Your task to perform on an android device: turn off location Image 0: 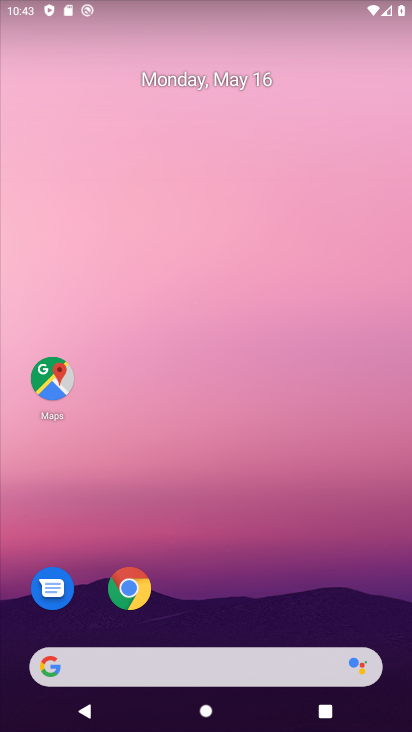
Step 0: drag from (178, 639) to (276, 188)
Your task to perform on an android device: turn off location Image 1: 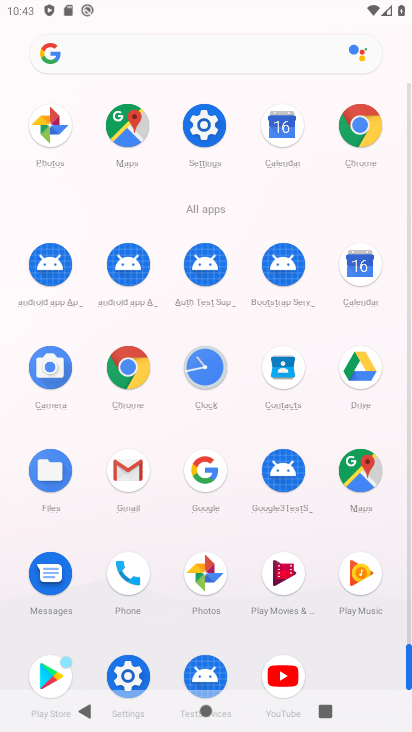
Step 1: click (131, 668)
Your task to perform on an android device: turn off location Image 2: 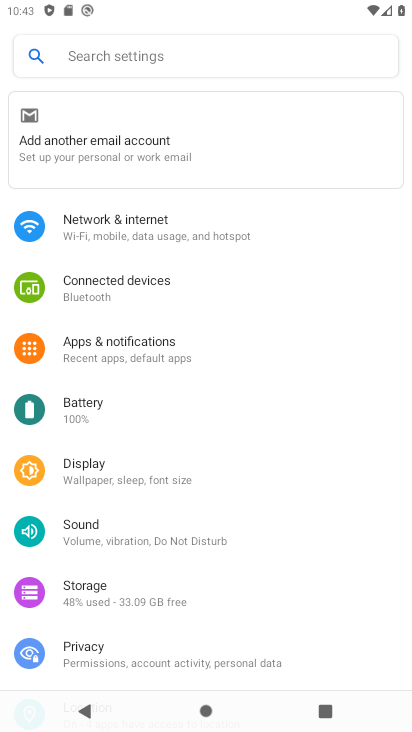
Step 2: drag from (158, 588) to (302, 220)
Your task to perform on an android device: turn off location Image 3: 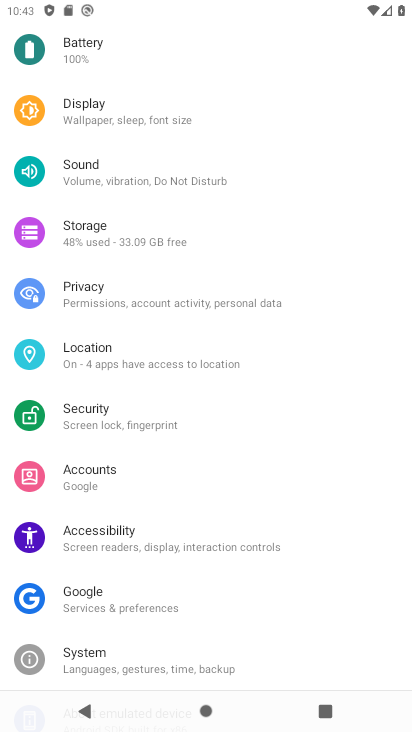
Step 3: click (159, 360)
Your task to perform on an android device: turn off location Image 4: 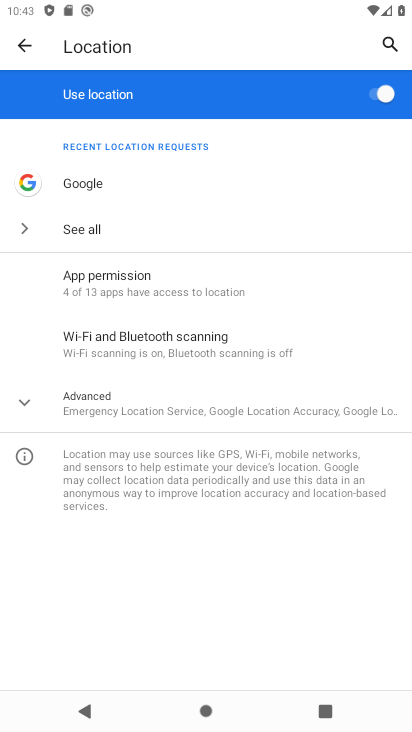
Step 4: click (375, 98)
Your task to perform on an android device: turn off location Image 5: 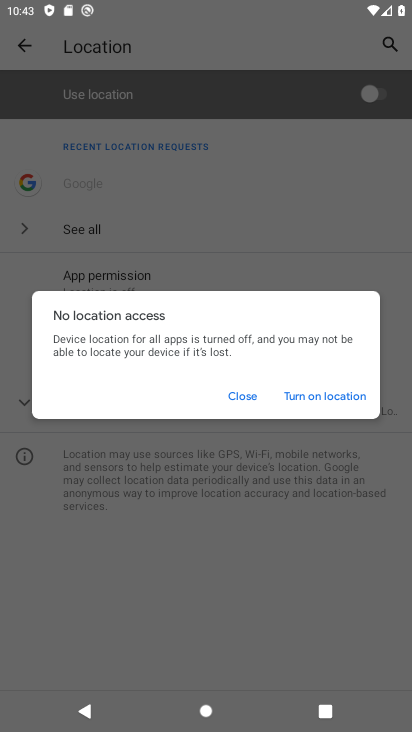
Step 5: task complete